Your task to perform on an android device: clear history in the chrome app Image 0: 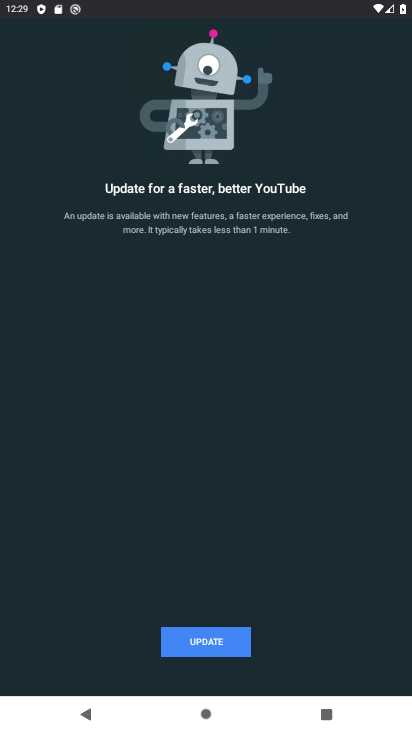
Step 0: drag from (303, 575) to (378, 259)
Your task to perform on an android device: clear history in the chrome app Image 1: 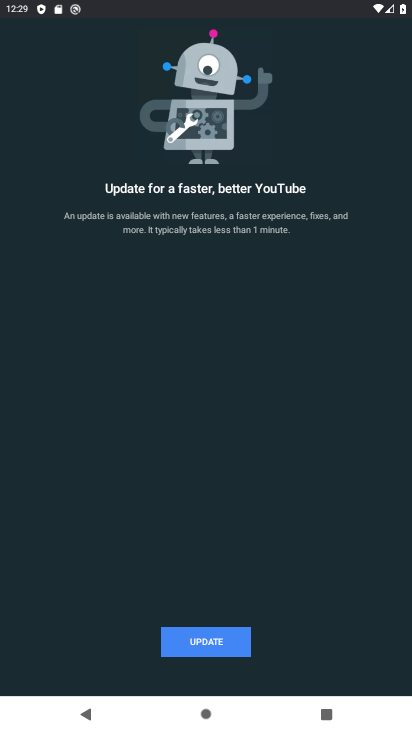
Step 1: drag from (359, 510) to (364, 329)
Your task to perform on an android device: clear history in the chrome app Image 2: 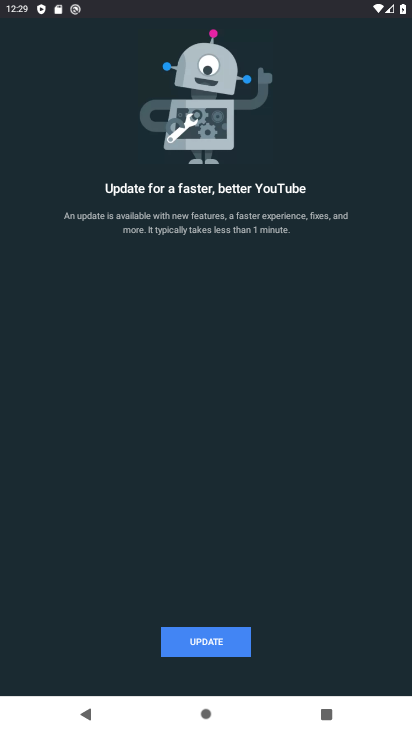
Step 2: drag from (286, 527) to (325, 365)
Your task to perform on an android device: clear history in the chrome app Image 3: 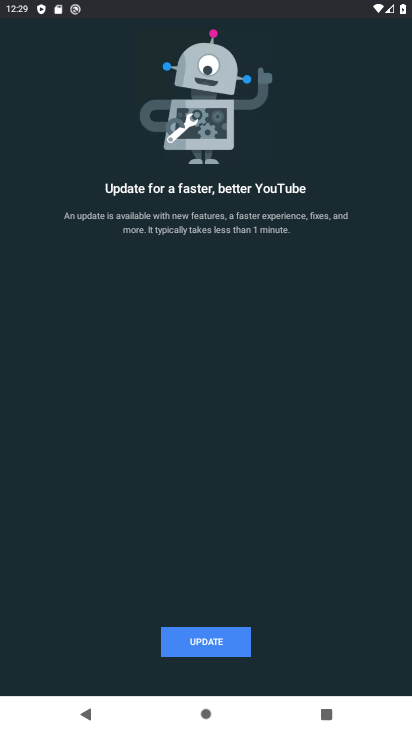
Step 3: drag from (290, 521) to (302, 303)
Your task to perform on an android device: clear history in the chrome app Image 4: 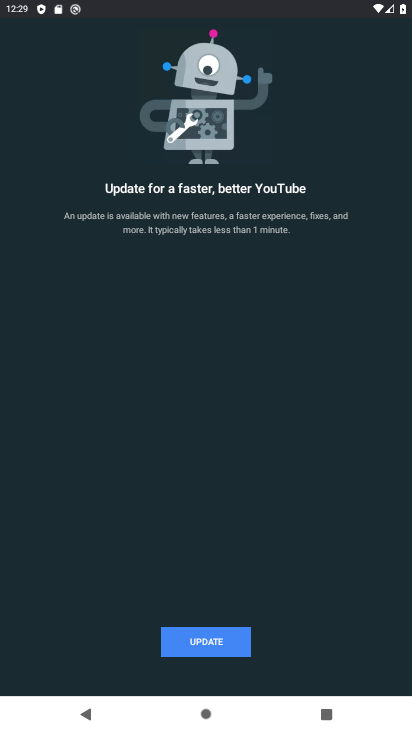
Step 4: drag from (252, 498) to (314, 248)
Your task to perform on an android device: clear history in the chrome app Image 5: 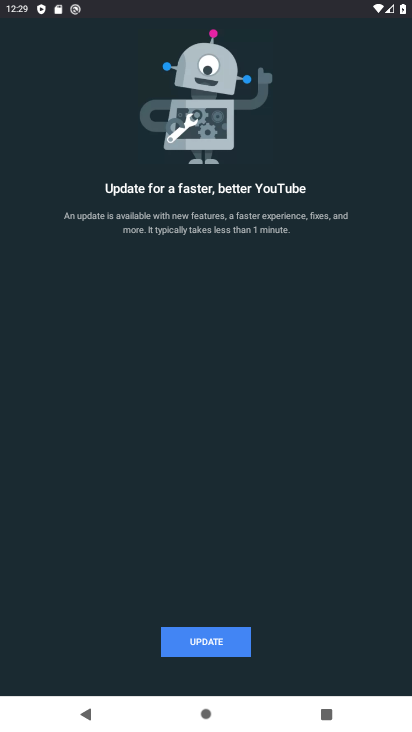
Step 5: drag from (241, 534) to (241, 424)
Your task to perform on an android device: clear history in the chrome app Image 6: 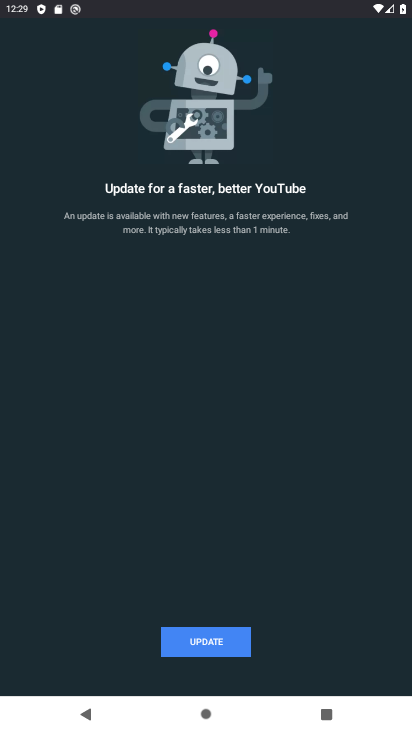
Step 6: press home button
Your task to perform on an android device: clear history in the chrome app Image 7: 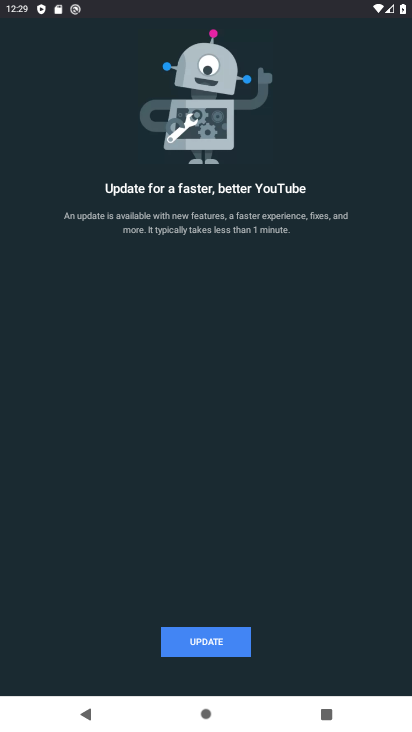
Step 7: press home button
Your task to perform on an android device: clear history in the chrome app Image 8: 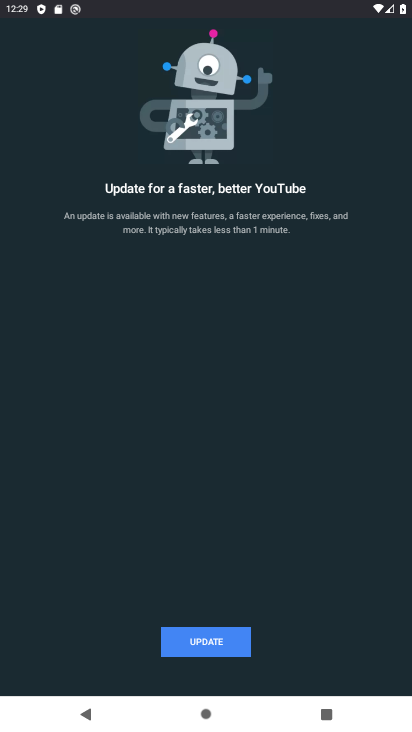
Step 8: click (265, 268)
Your task to perform on an android device: clear history in the chrome app Image 9: 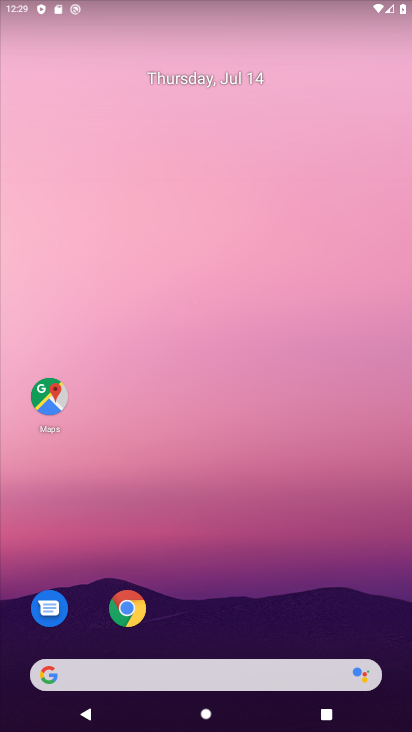
Step 9: drag from (176, 593) to (209, 156)
Your task to perform on an android device: clear history in the chrome app Image 10: 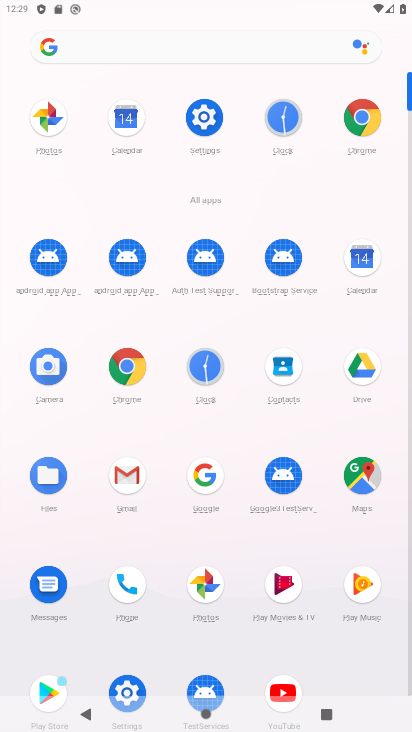
Step 10: click (131, 370)
Your task to perform on an android device: clear history in the chrome app Image 11: 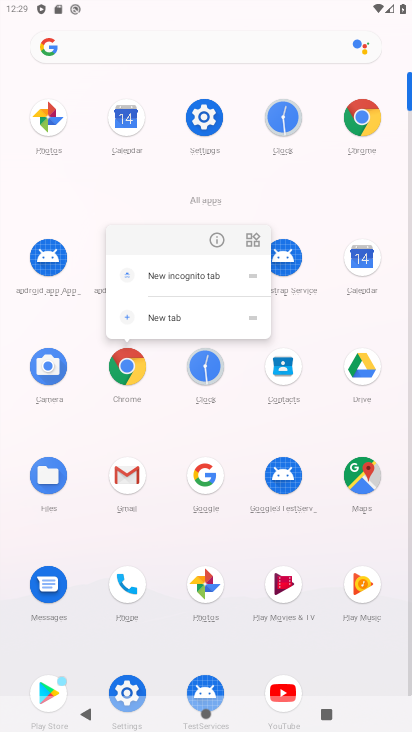
Step 11: click (215, 233)
Your task to perform on an android device: clear history in the chrome app Image 12: 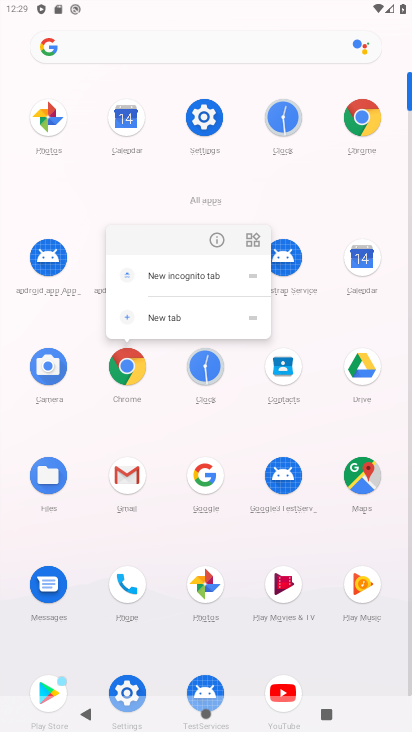
Step 12: click (215, 233)
Your task to perform on an android device: clear history in the chrome app Image 13: 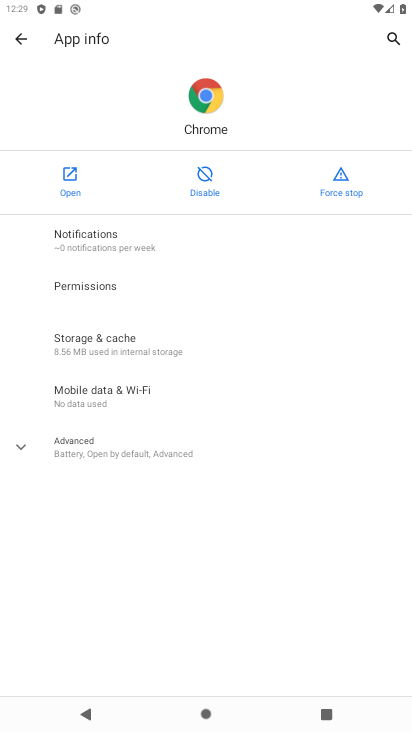
Step 13: drag from (220, 505) to (220, 175)
Your task to perform on an android device: clear history in the chrome app Image 14: 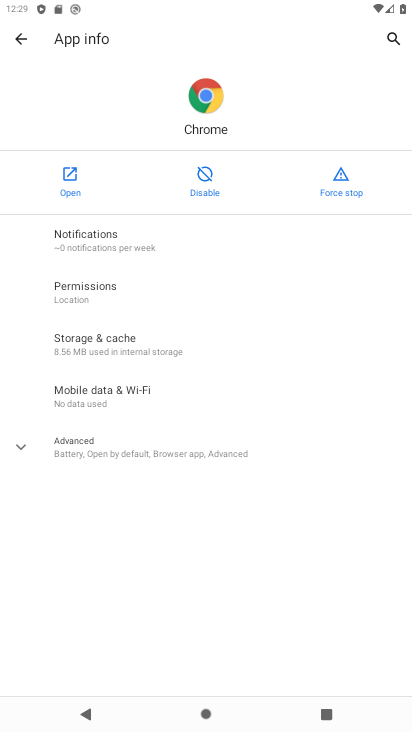
Step 14: click (81, 166)
Your task to perform on an android device: clear history in the chrome app Image 15: 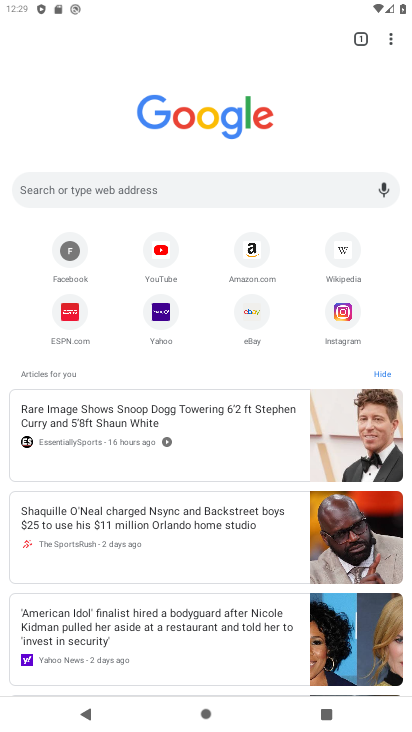
Step 15: click (394, 45)
Your task to perform on an android device: clear history in the chrome app Image 16: 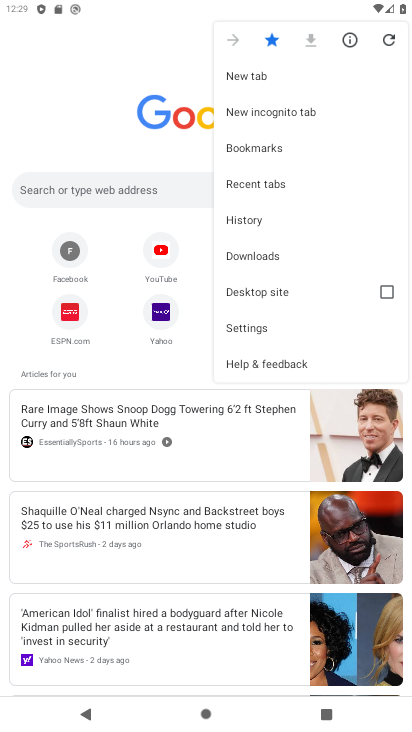
Step 16: drag from (270, 364) to (316, 123)
Your task to perform on an android device: clear history in the chrome app Image 17: 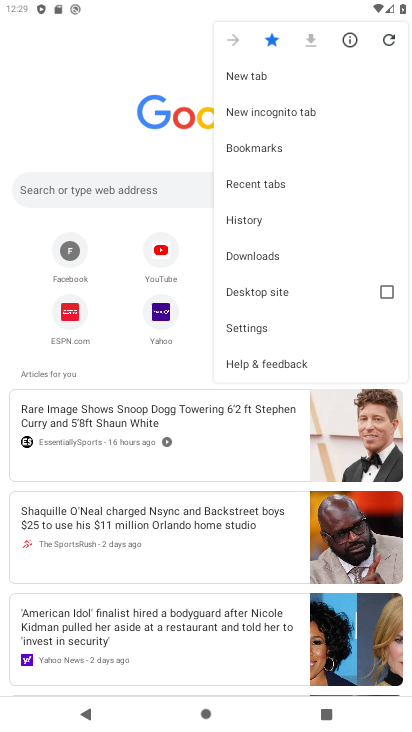
Step 17: click (271, 326)
Your task to perform on an android device: clear history in the chrome app Image 18: 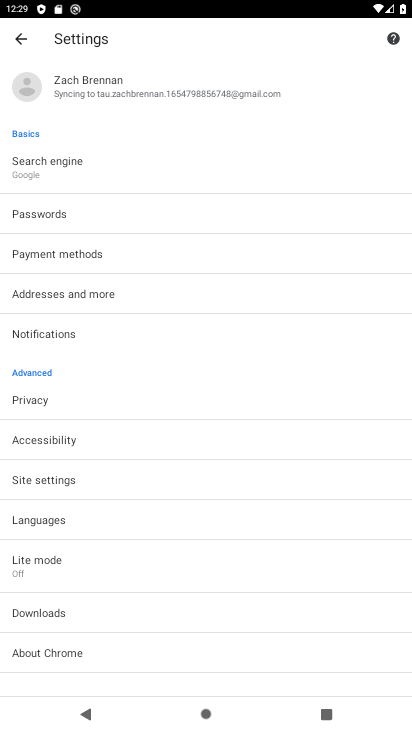
Step 18: drag from (144, 484) to (231, 78)
Your task to perform on an android device: clear history in the chrome app Image 19: 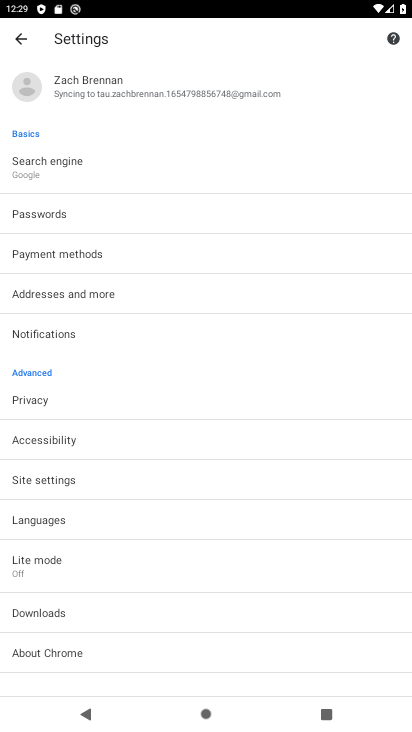
Step 19: drag from (110, 600) to (167, 65)
Your task to perform on an android device: clear history in the chrome app Image 20: 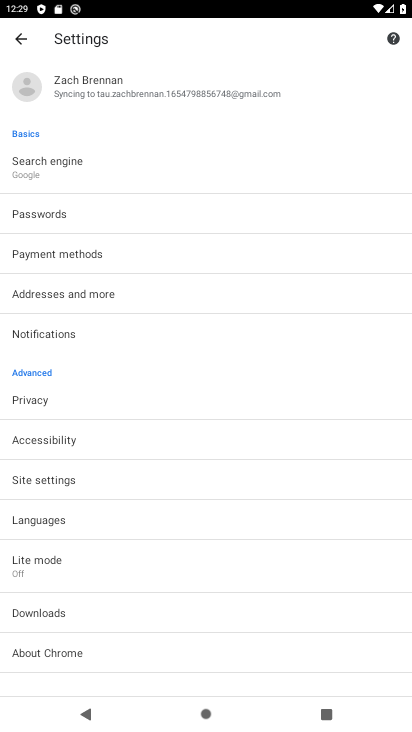
Step 20: click (86, 470)
Your task to perform on an android device: clear history in the chrome app Image 21: 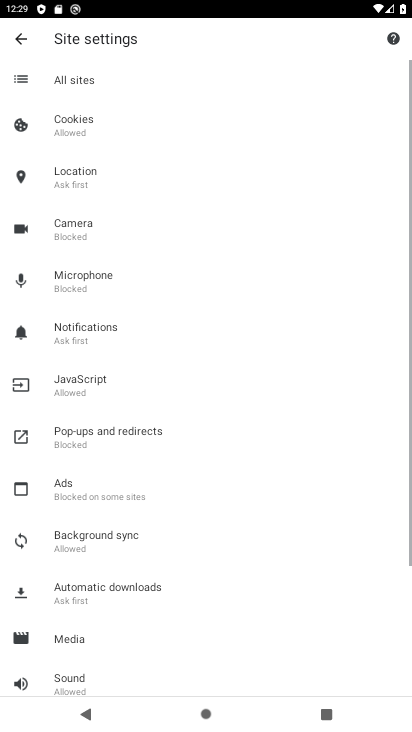
Step 21: drag from (136, 568) to (194, 175)
Your task to perform on an android device: clear history in the chrome app Image 22: 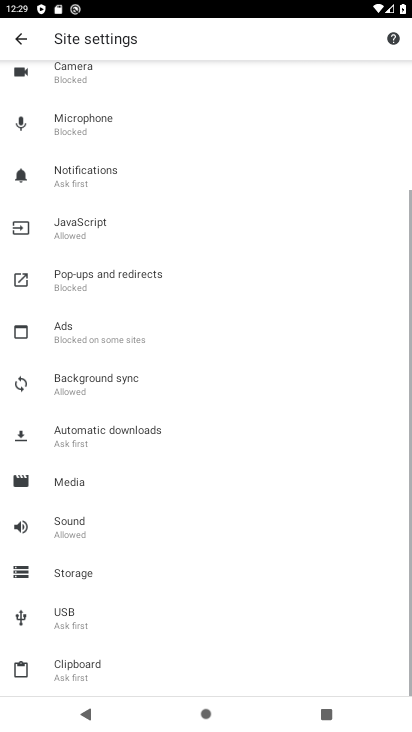
Step 22: drag from (125, 568) to (278, 53)
Your task to perform on an android device: clear history in the chrome app Image 23: 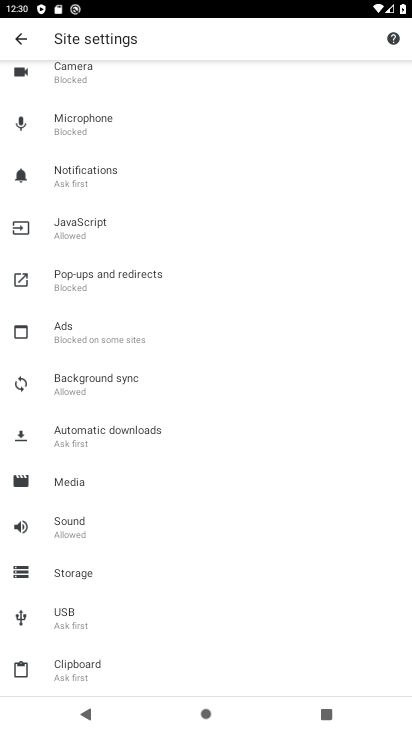
Step 23: drag from (163, 129) to (172, 573)
Your task to perform on an android device: clear history in the chrome app Image 24: 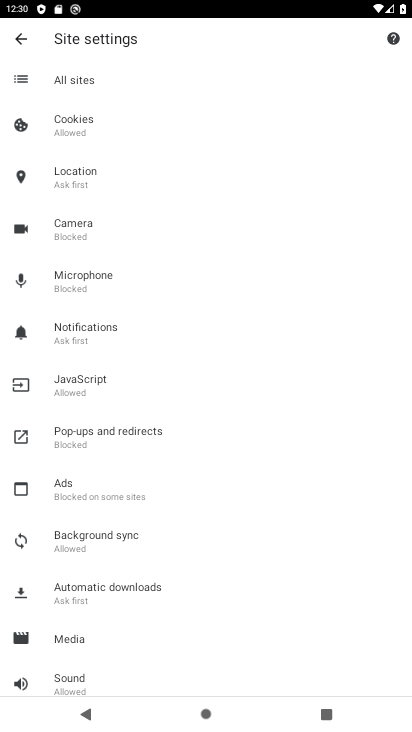
Step 24: click (15, 35)
Your task to perform on an android device: clear history in the chrome app Image 25: 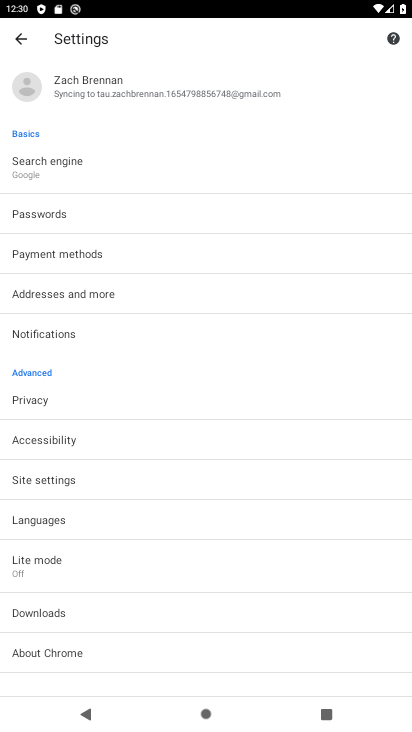
Step 25: click (26, 41)
Your task to perform on an android device: clear history in the chrome app Image 26: 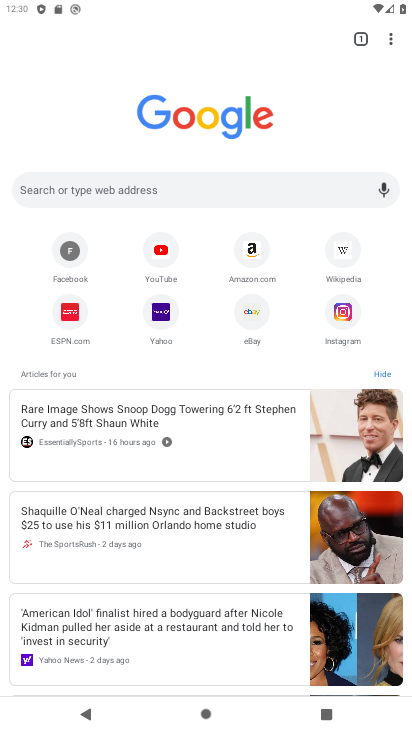
Step 26: click (391, 37)
Your task to perform on an android device: clear history in the chrome app Image 27: 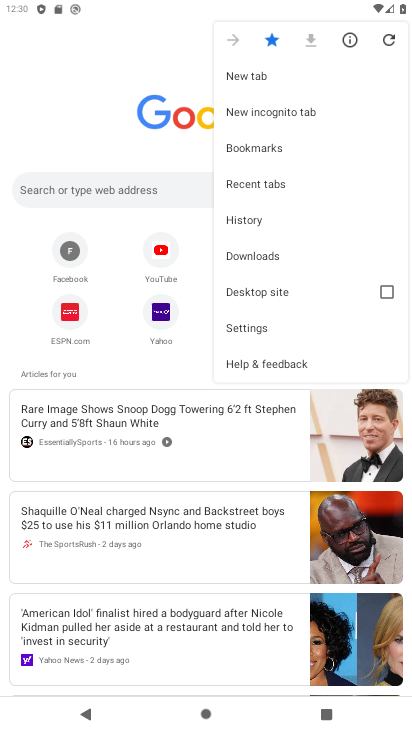
Step 27: click (260, 329)
Your task to perform on an android device: clear history in the chrome app Image 28: 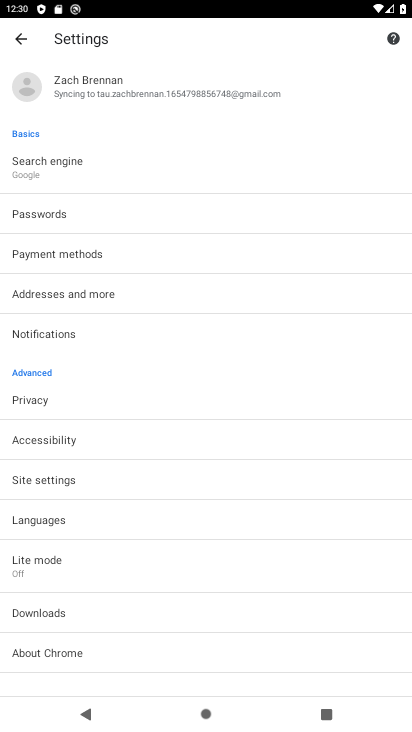
Step 28: click (28, 24)
Your task to perform on an android device: clear history in the chrome app Image 29: 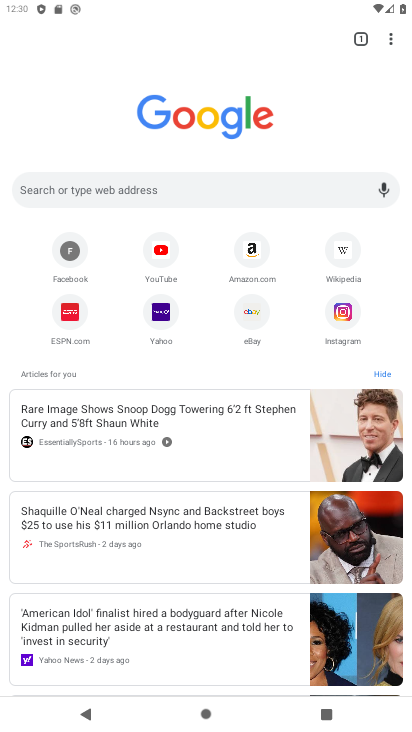
Step 29: click (395, 38)
Your task to perform on an android device: clear history in the chrome app Image 30: 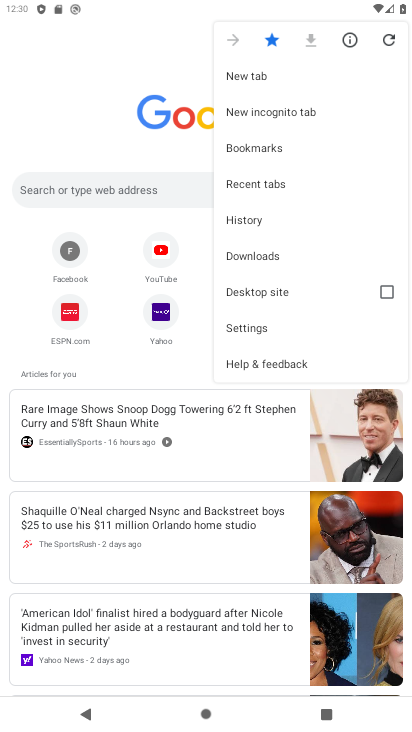
Step 30: click (237, 222)
Your task to perform on an android device: clear history in the chrome app Image 31: 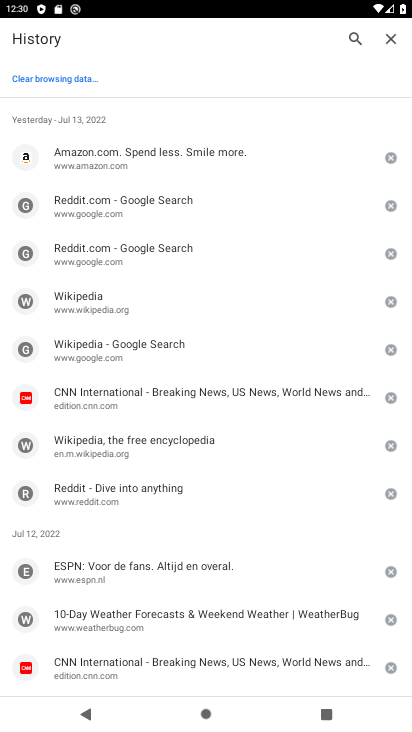
Step 31: click (36, 76)
Your task to perform on an android device: clear history in the chrome app Image 32: 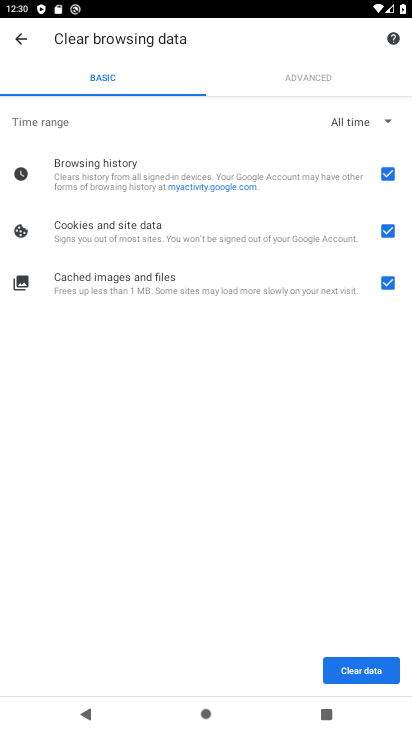
Step 32: click (368, 672)
Your task to perform on an android device: clear history in the chrome app Image 33: 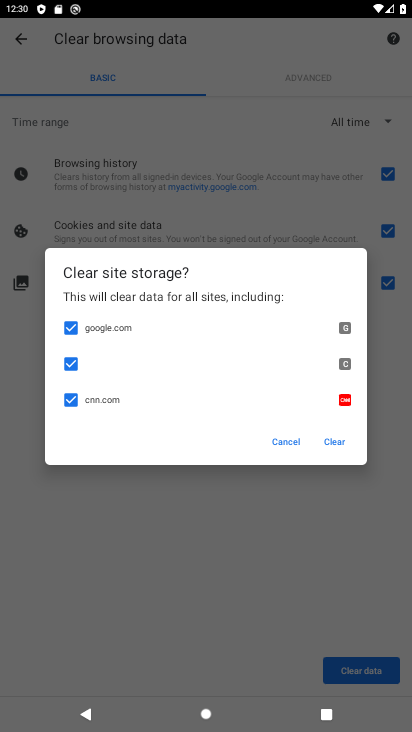
Step 33: click (327, 447)
Your task to perform on an android device: clear history in the chrome app Image 34: 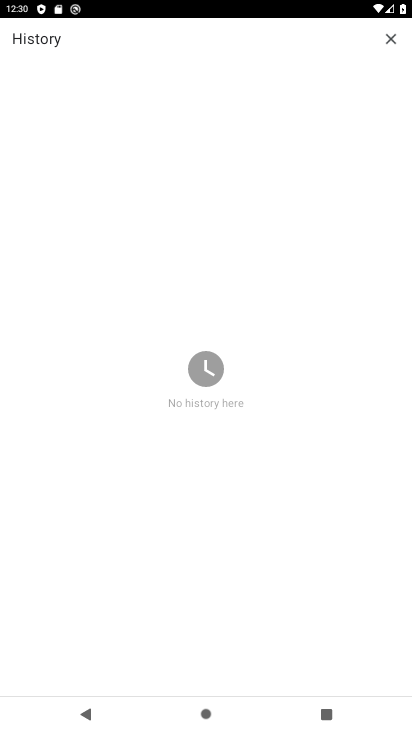
Step 34: task complete